Your task to perform on an android device: Search for the new lego star wars 2021 on Target Image 0: 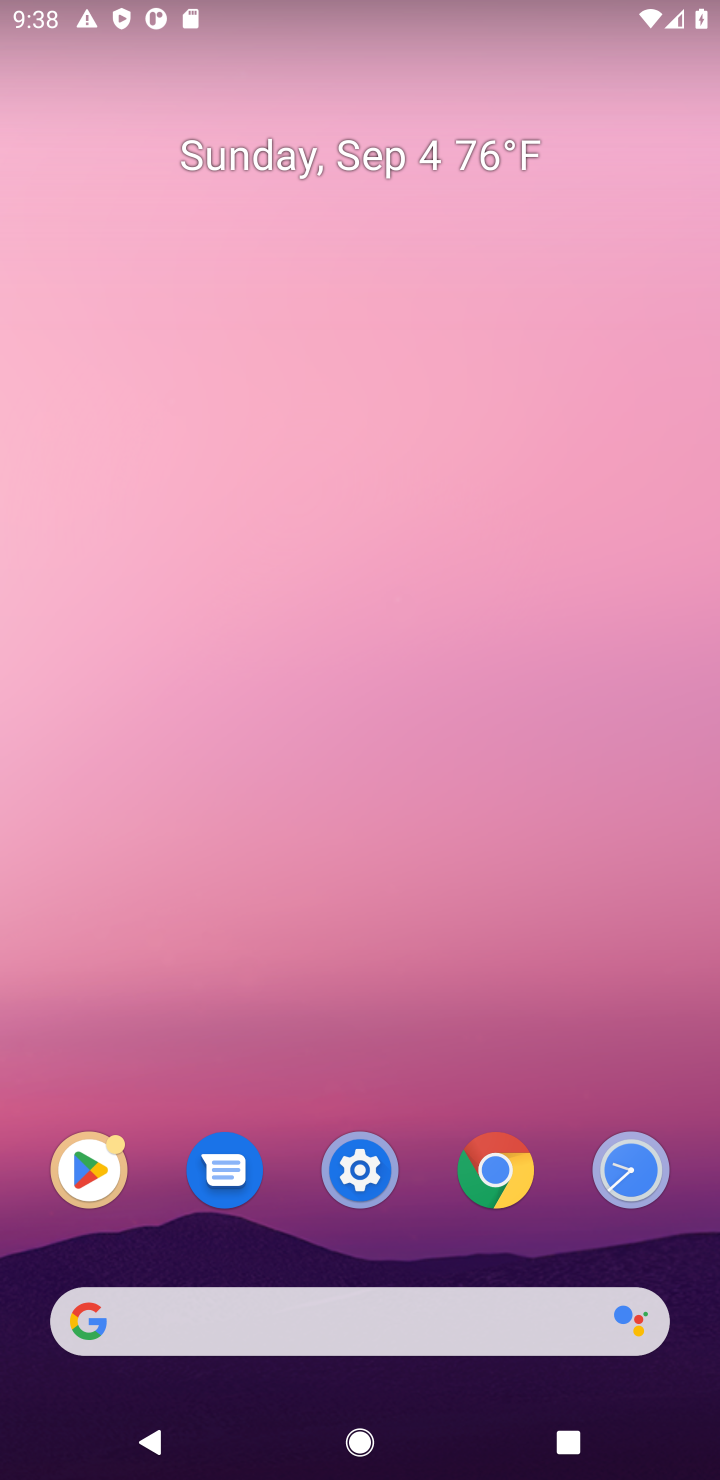
Step 0: click (332, 1331)
Your task to perform on an android device: Search for the new lego star wars 2021 on Target Image 1: 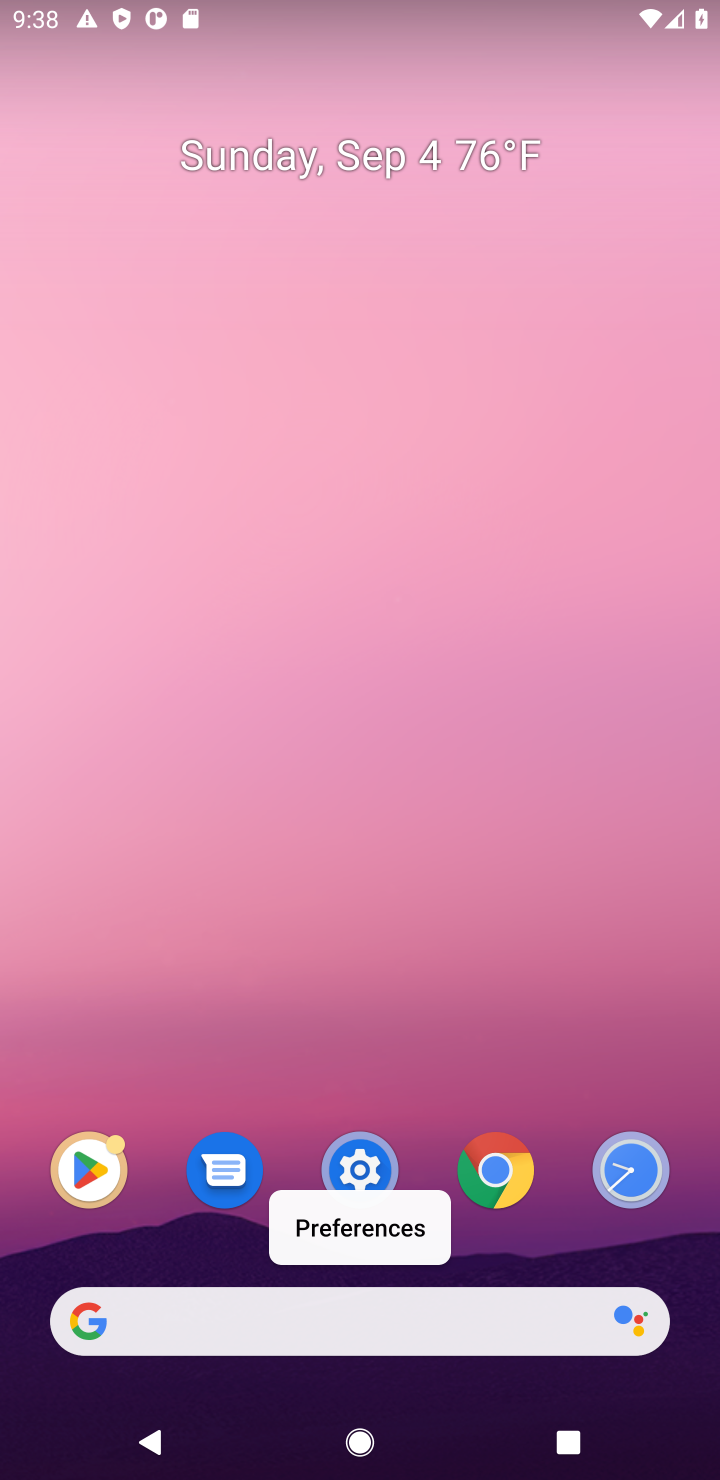
Step 1: click (332, 1331)
Your task to perform on an android device: Search for the new lego star wars 2021 on Target Image 2: 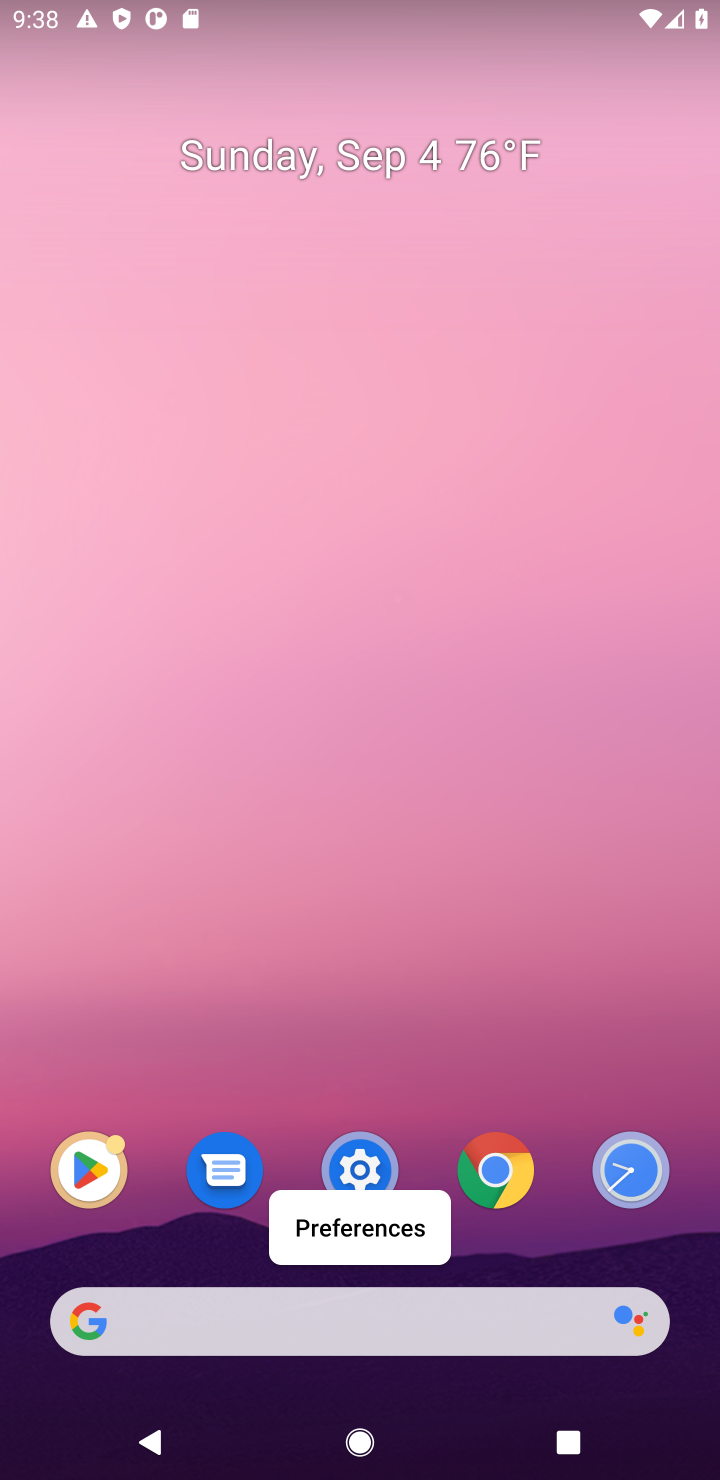
Step 2: click (346, 1327)
Your task to perform on an android device: Search for the new lego star wars 2021 on Target Image 3: 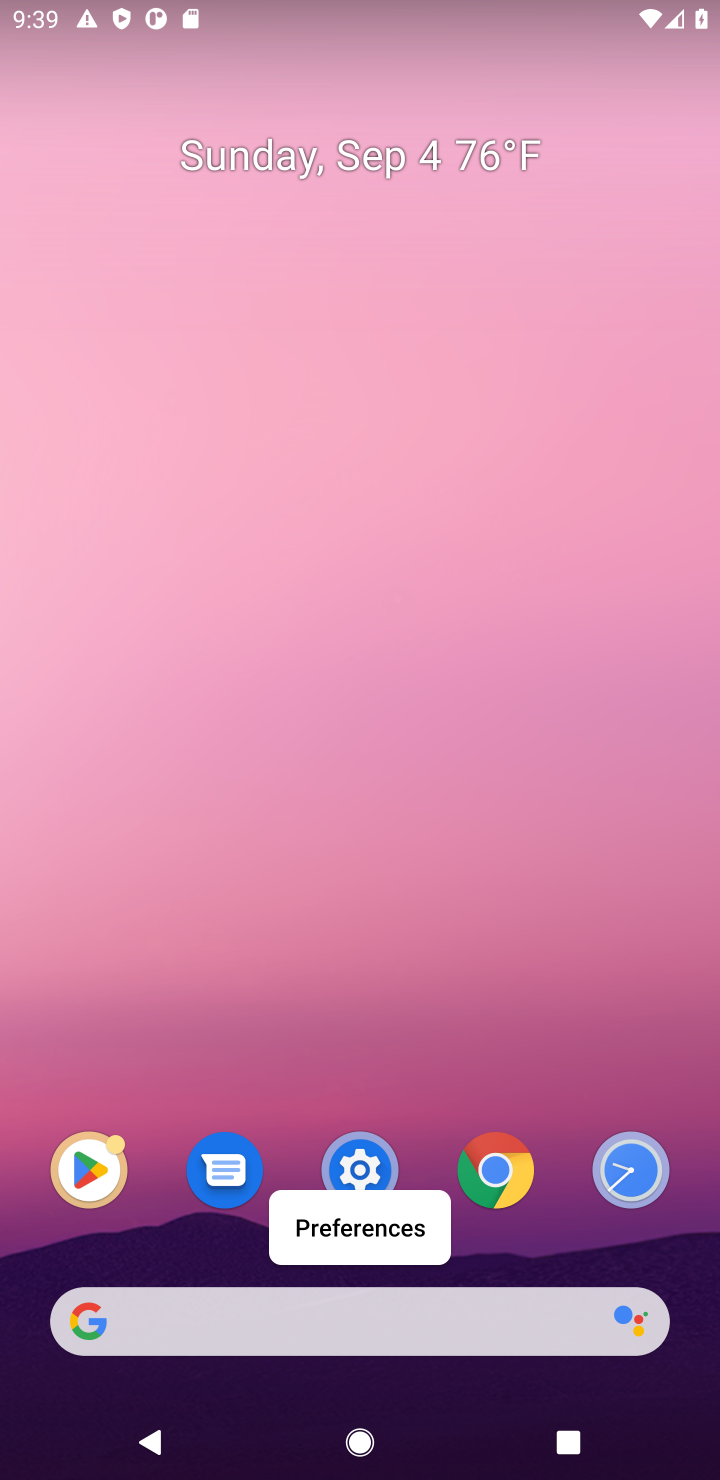
Step 3: click (366, 1338)
Your task to perform on an android device: Search for the new lego star wars 2021 on Target Image 4: 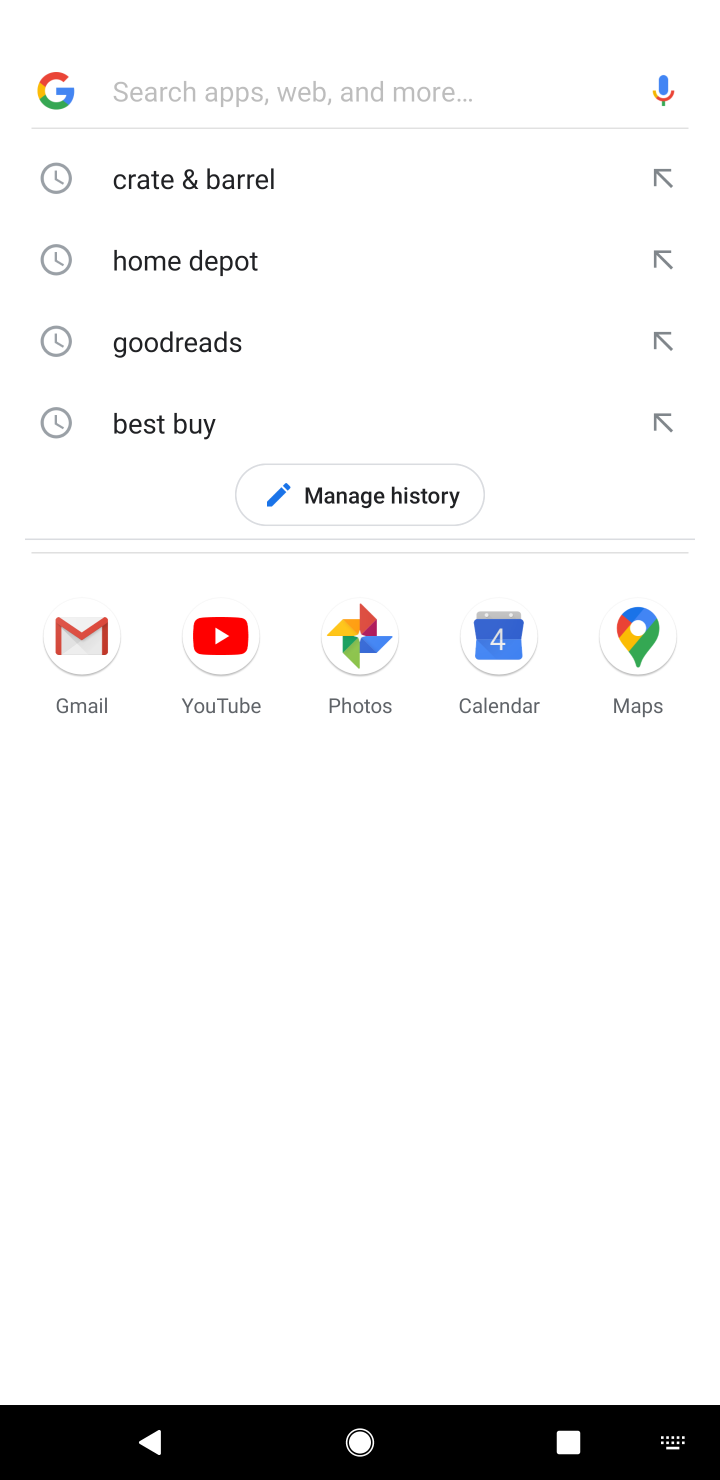
Step 4: type "Target"
Your task to perform on an android device: Search for the new lego star wars 2021 on Target Image 5: 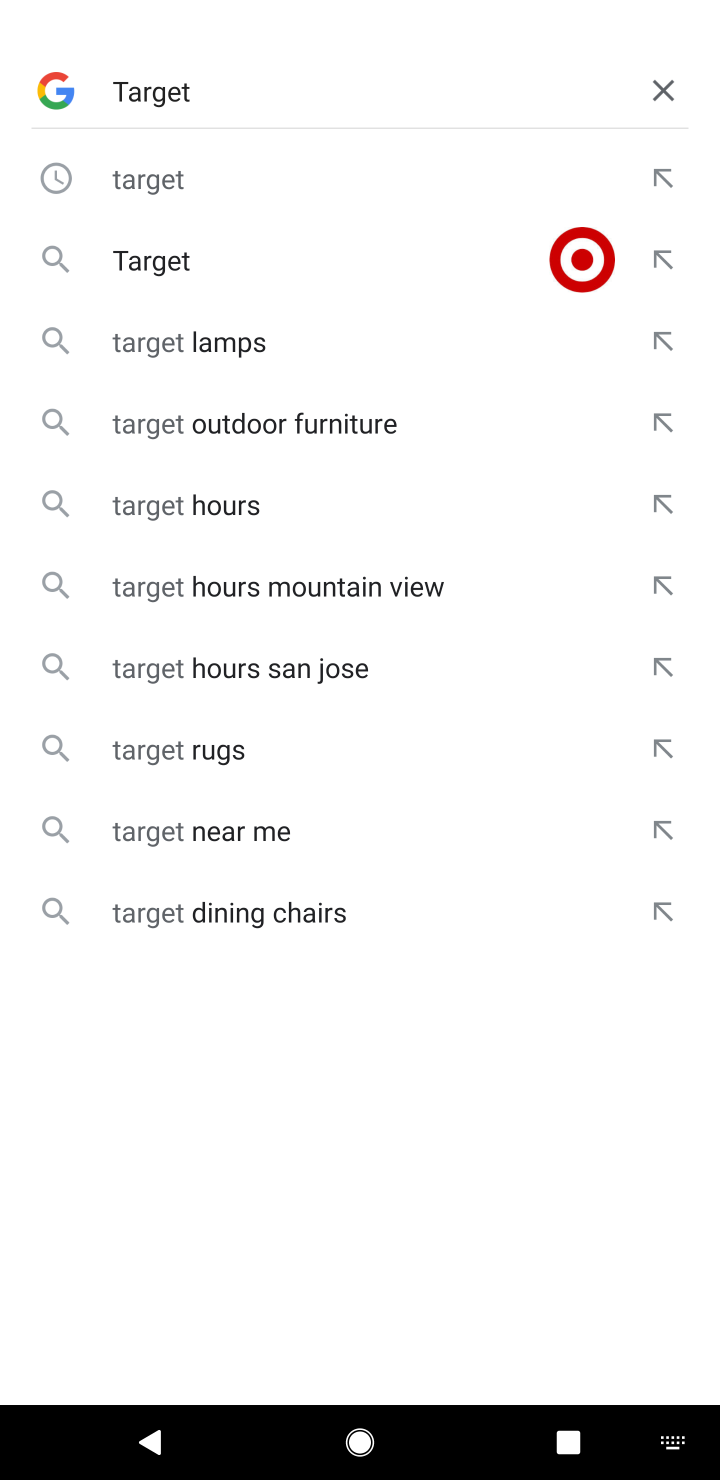
Step 5: type ""
Your task to perform on an android device: Search for the new lego star wars 2021 on Target Image 6: 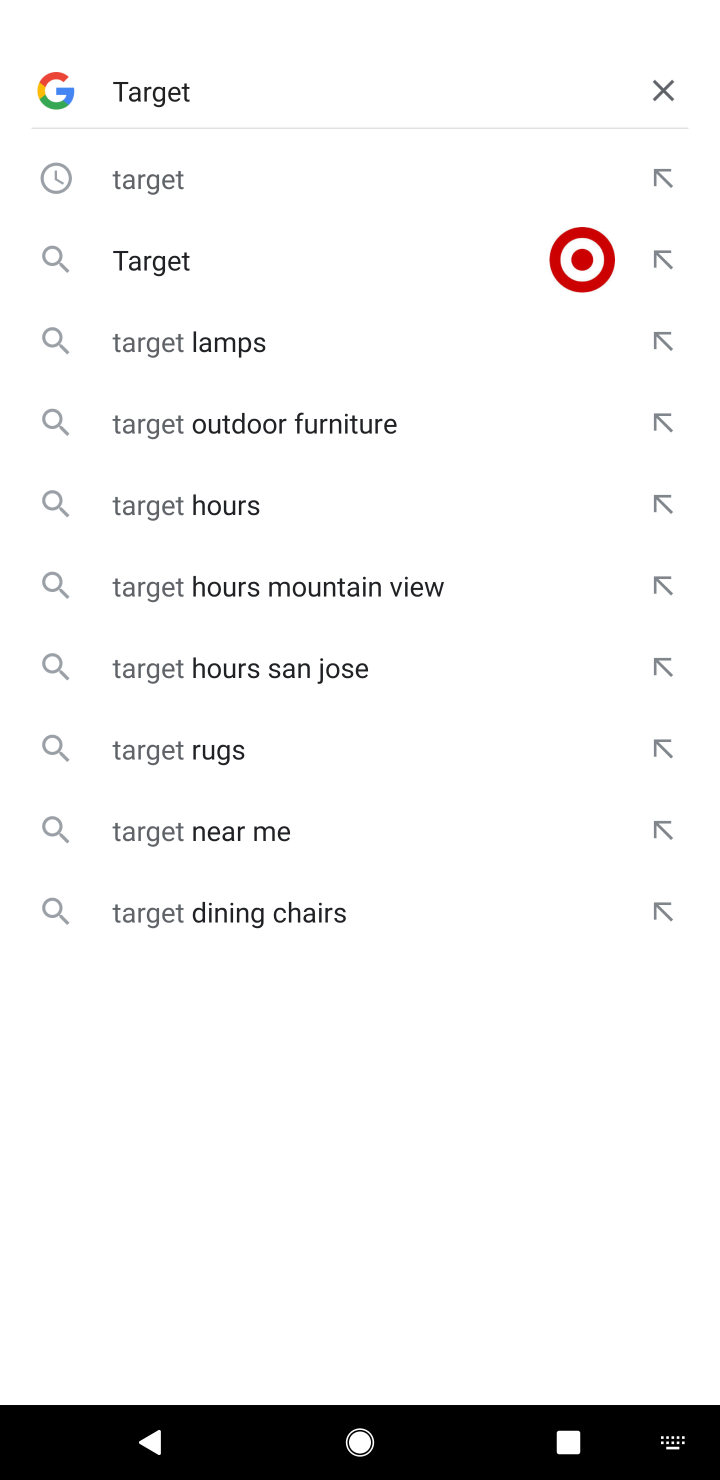
Step 6: click (195, 245)
Your task to perform on an android device: Search for the new lego star wars 2021 on Target Image 7: 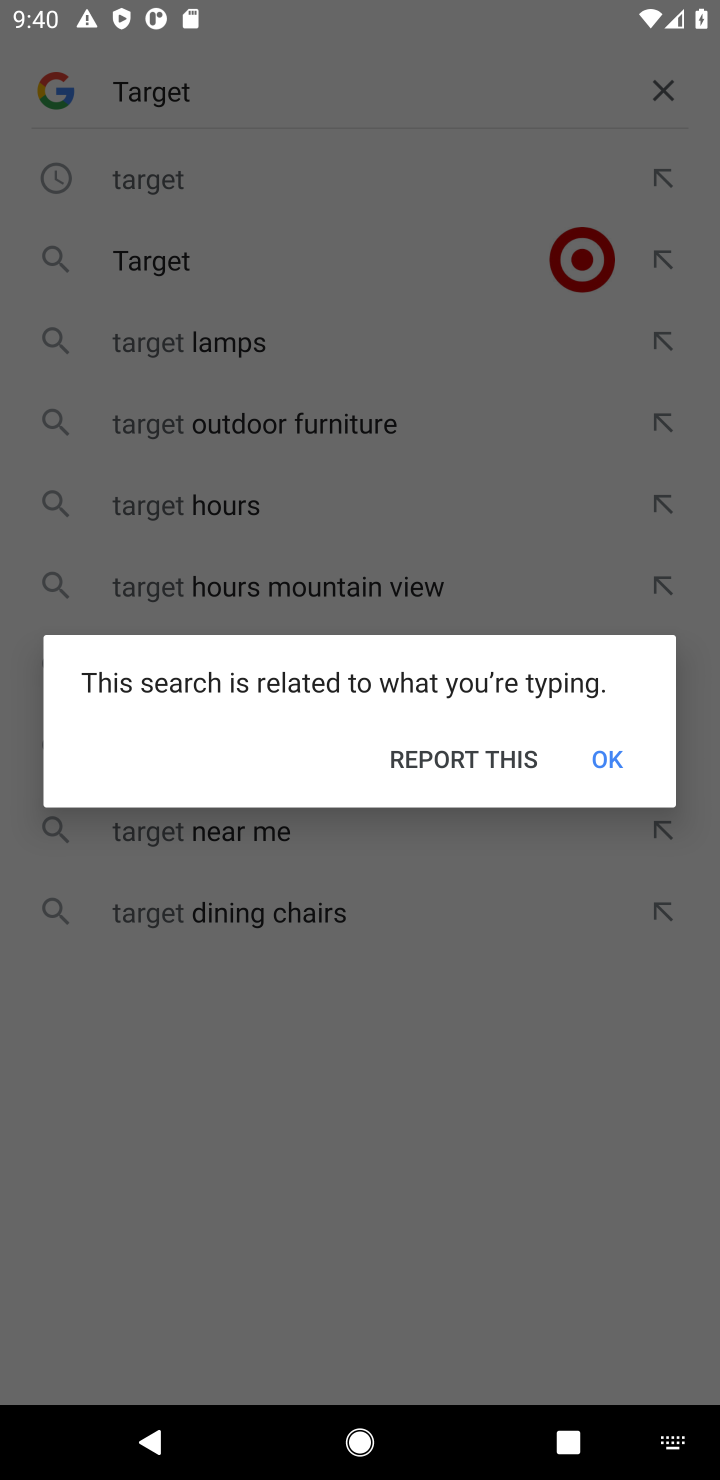
Step 7: click (610, 776)
Your task to perform on an android device: Search for the new lego star wars 2021 on Target Image 8: 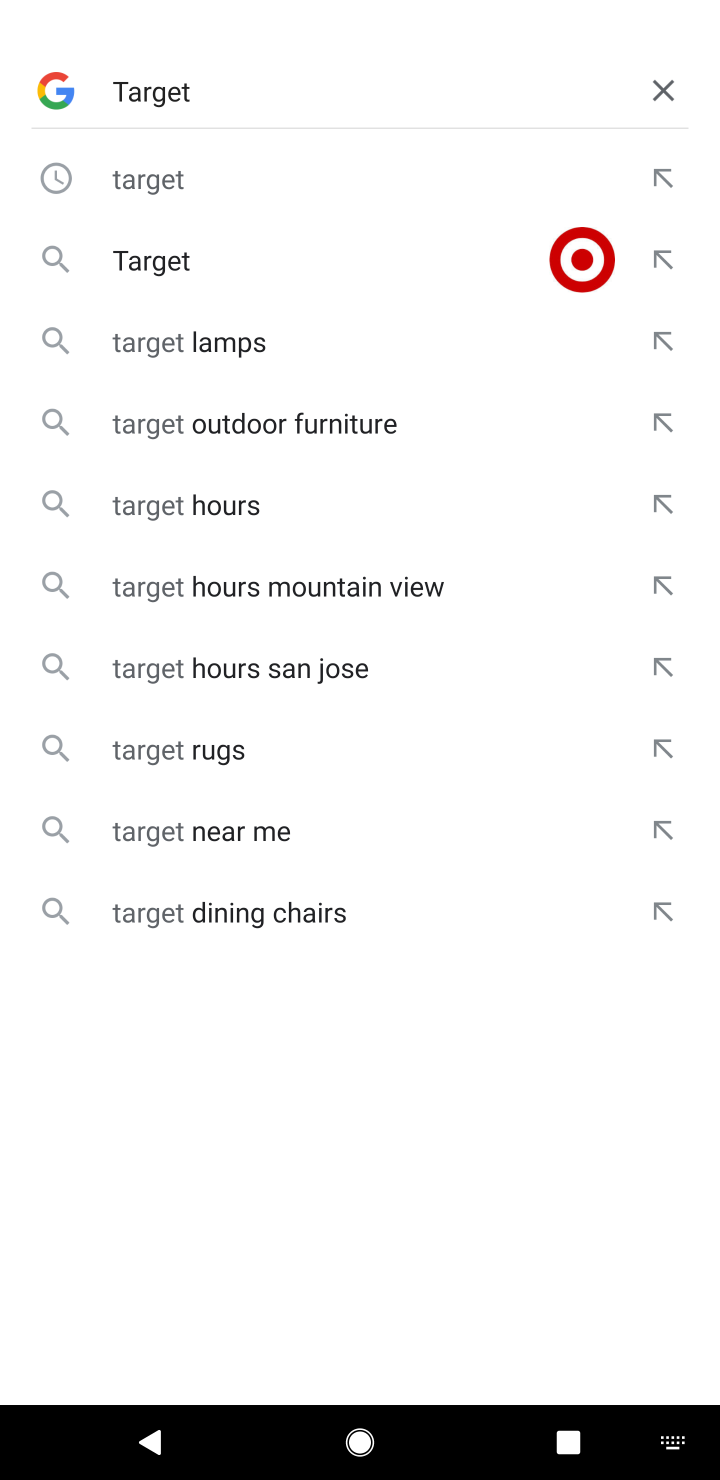
Step 8: click (169, 273)
Your task to perform on an android device: Search for the new lego star wars 2021 on Target Image 9: 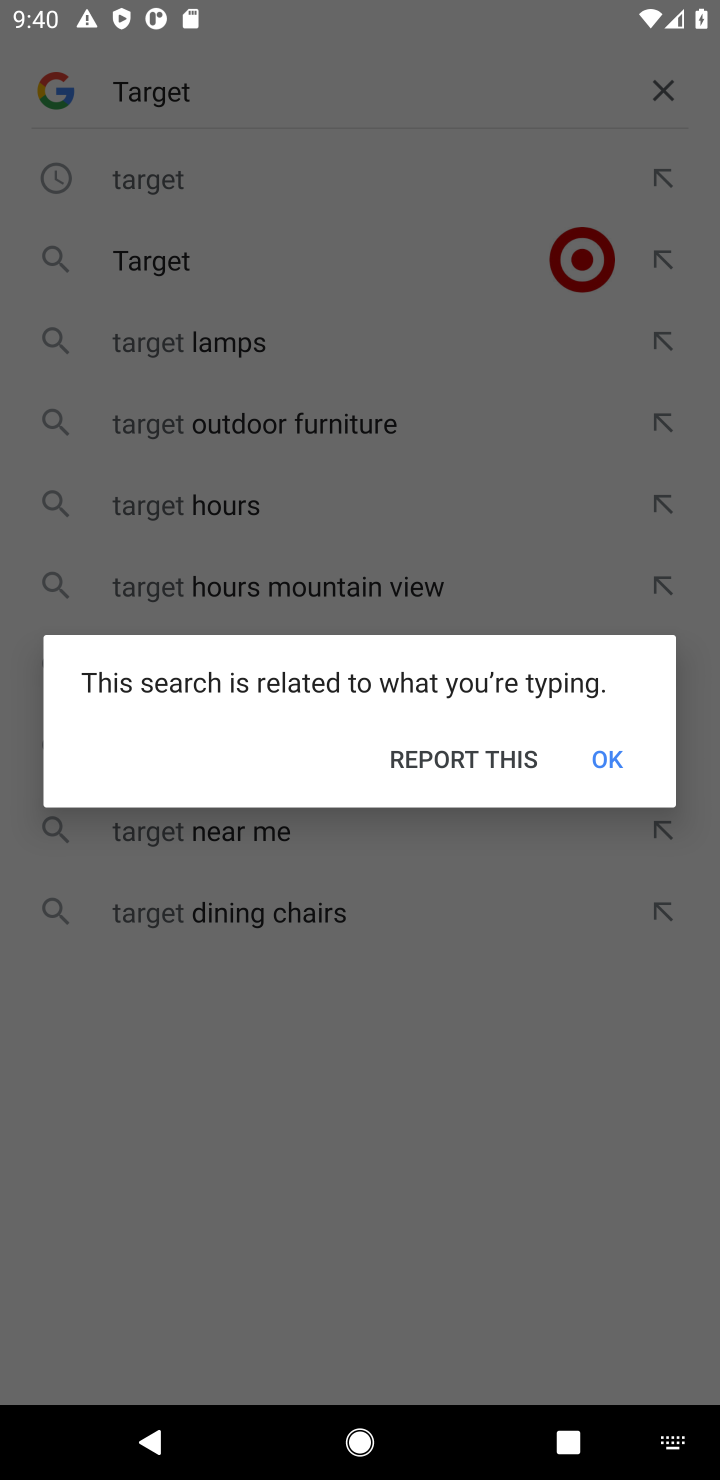
Step 9: click (587, 753)
Your task to perform on an android device: Search for the new lego star wars 2021 on Target Image 10: 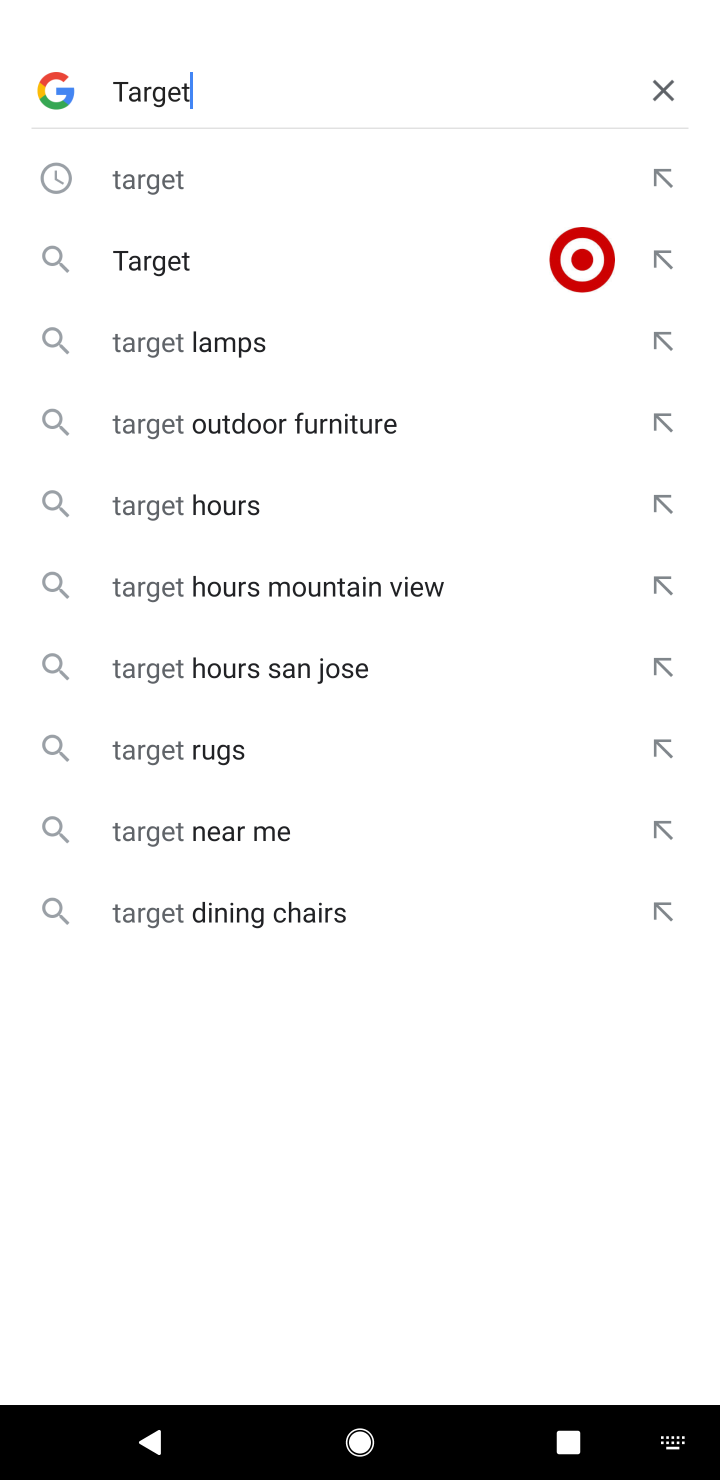
Step 10: click (186, 251)
Your task to perform on an android device: Search for the new lego star wars 2021 on Target Image 11: 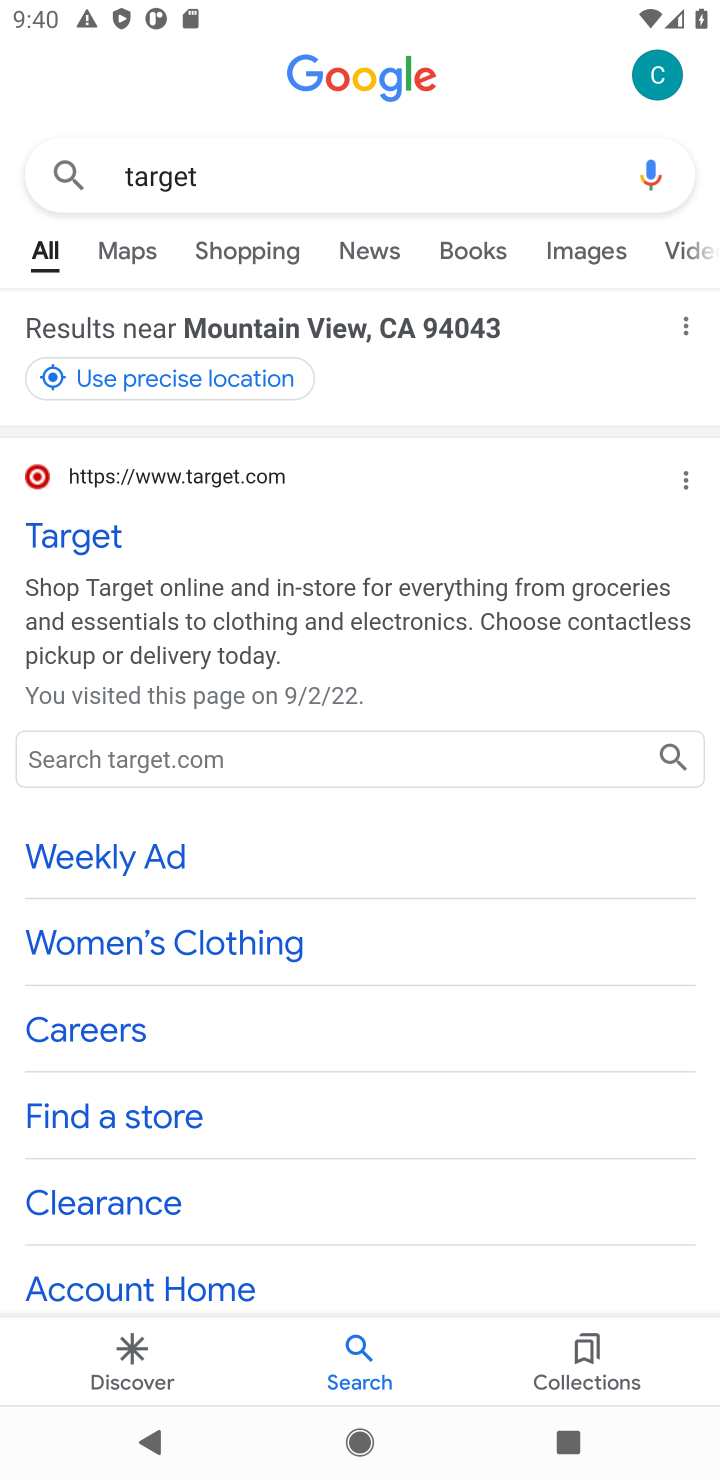
Step 11: click (97, 535)
Your task to perform on an android device: Search for the new lego star wars 2021 on Target Image 12: 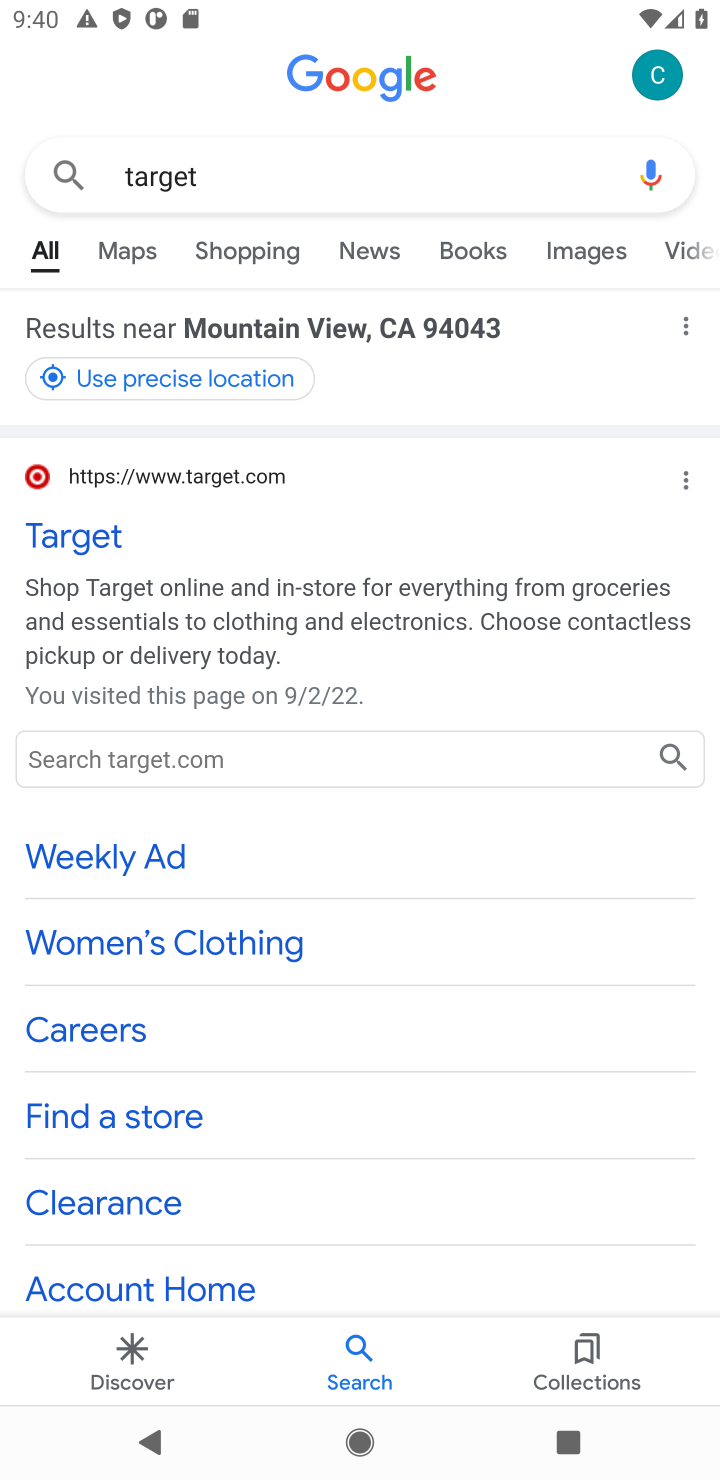
Step 12: click (126, 564)
Your task to perform on an android device: Search for the new lego star wars 2021 on Target Image 13: 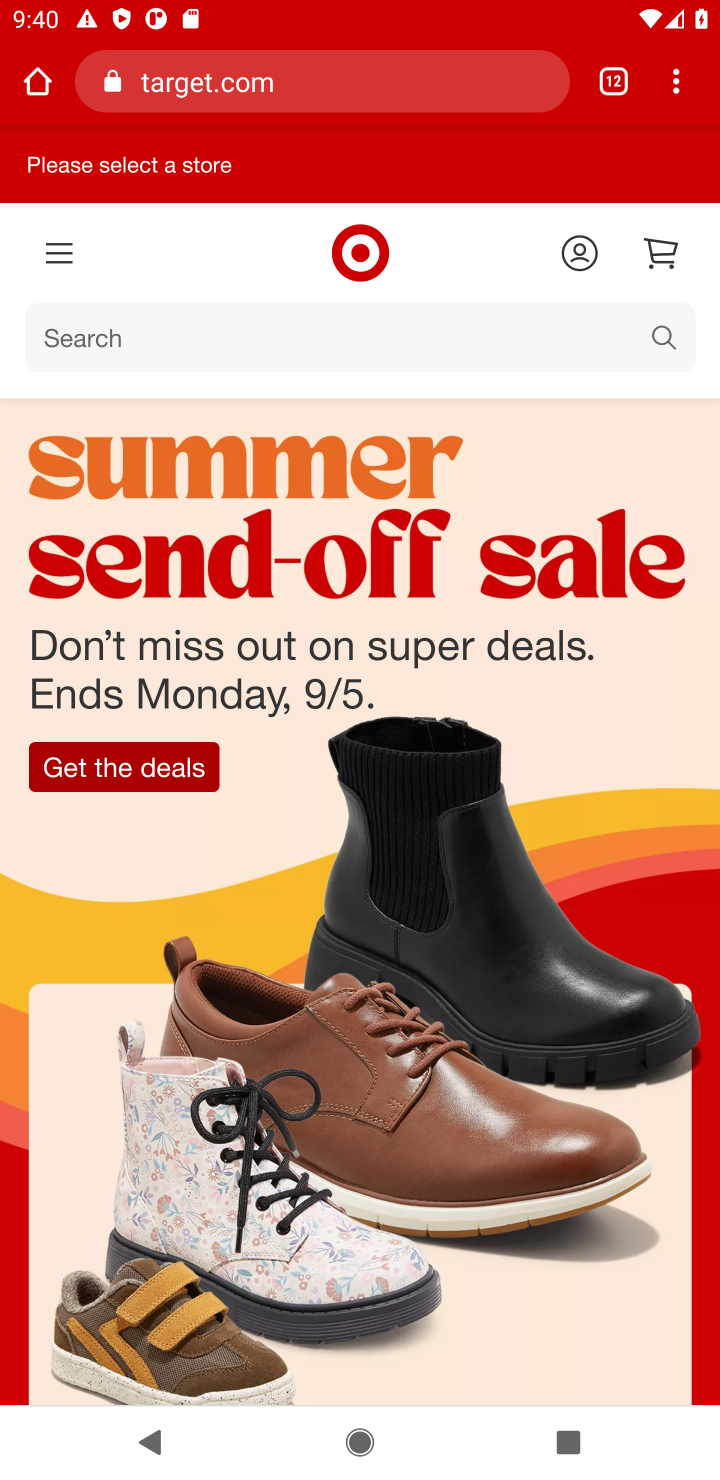
Step 13: click (122, 359)
Your task to perform on an android device: Search for the new lego star wars 2021 on Target Image 14: 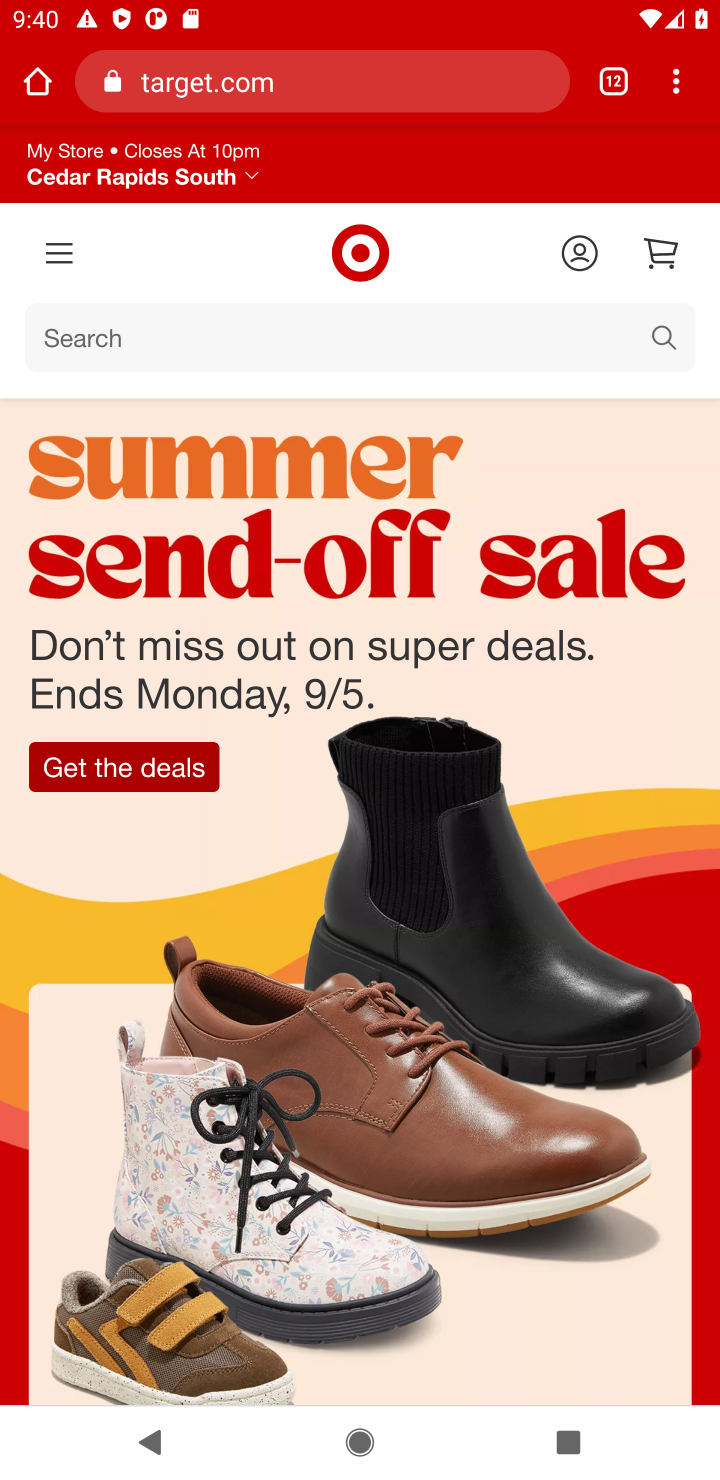
Step 14: click (132, 349)
Your task to perform on an android device: Search for the new lego star wars 2021 on Target Image 15: 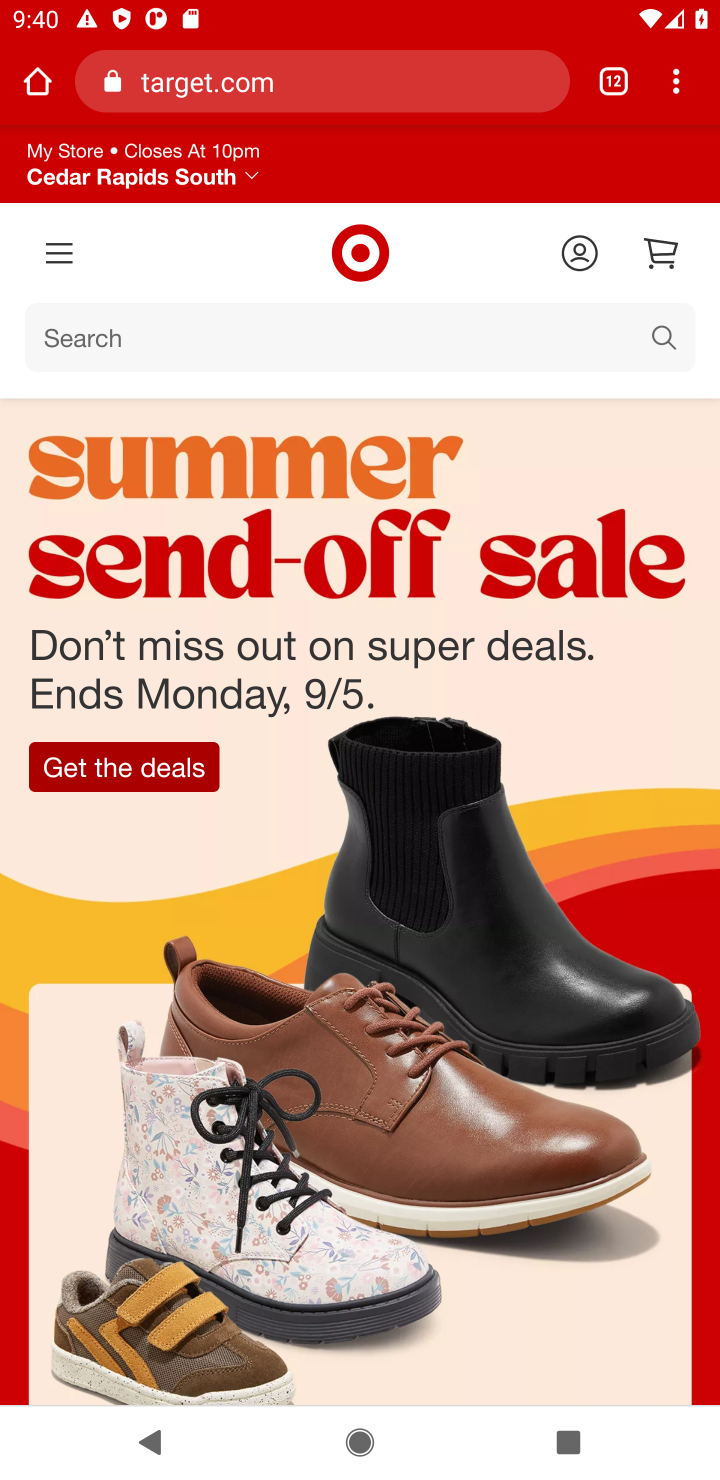
Step 15: click (144, 346)
Your task to perform on an android device: Search for the new lego star wars 2021 on Target Image 16: 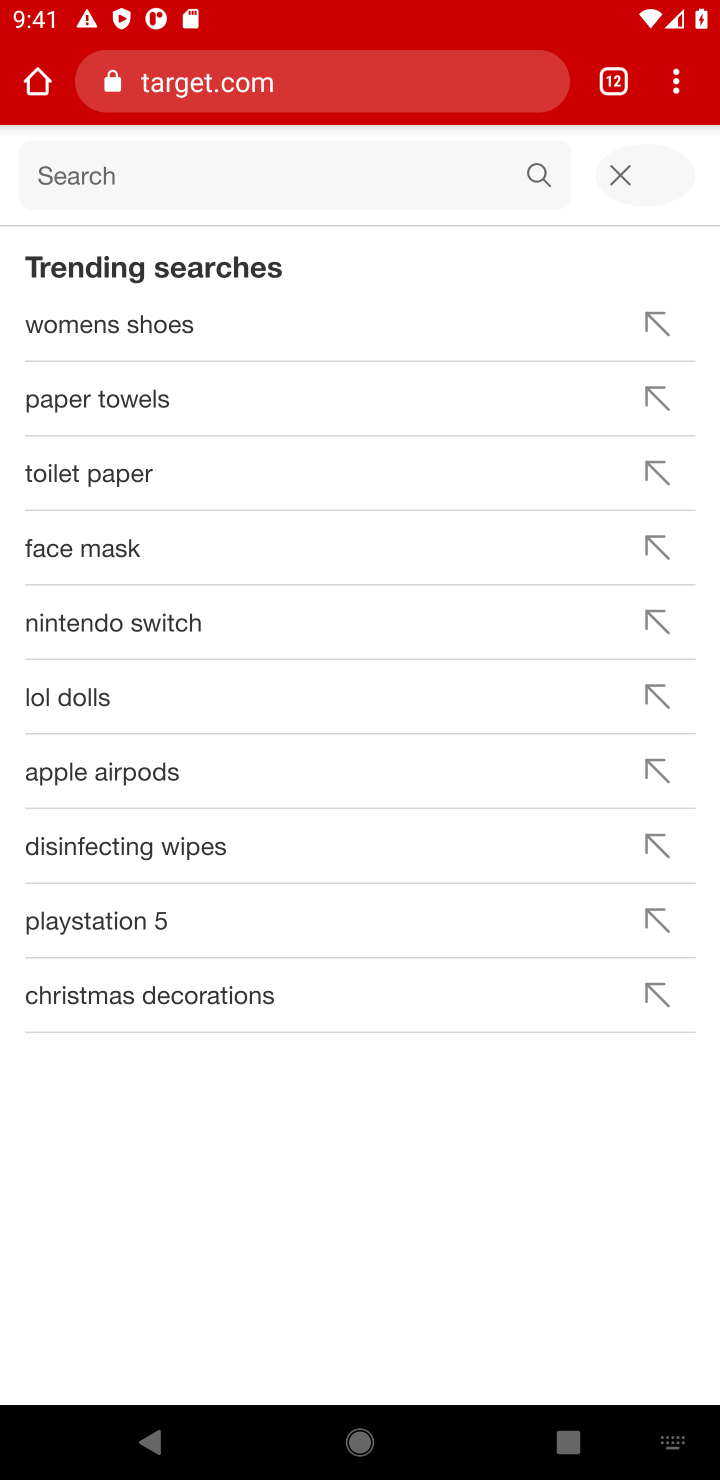
Step 16: type "new lego star wars 2021"
Your task to perform on an android device: Search for the new lego star wars 2021 on Target Image 17: 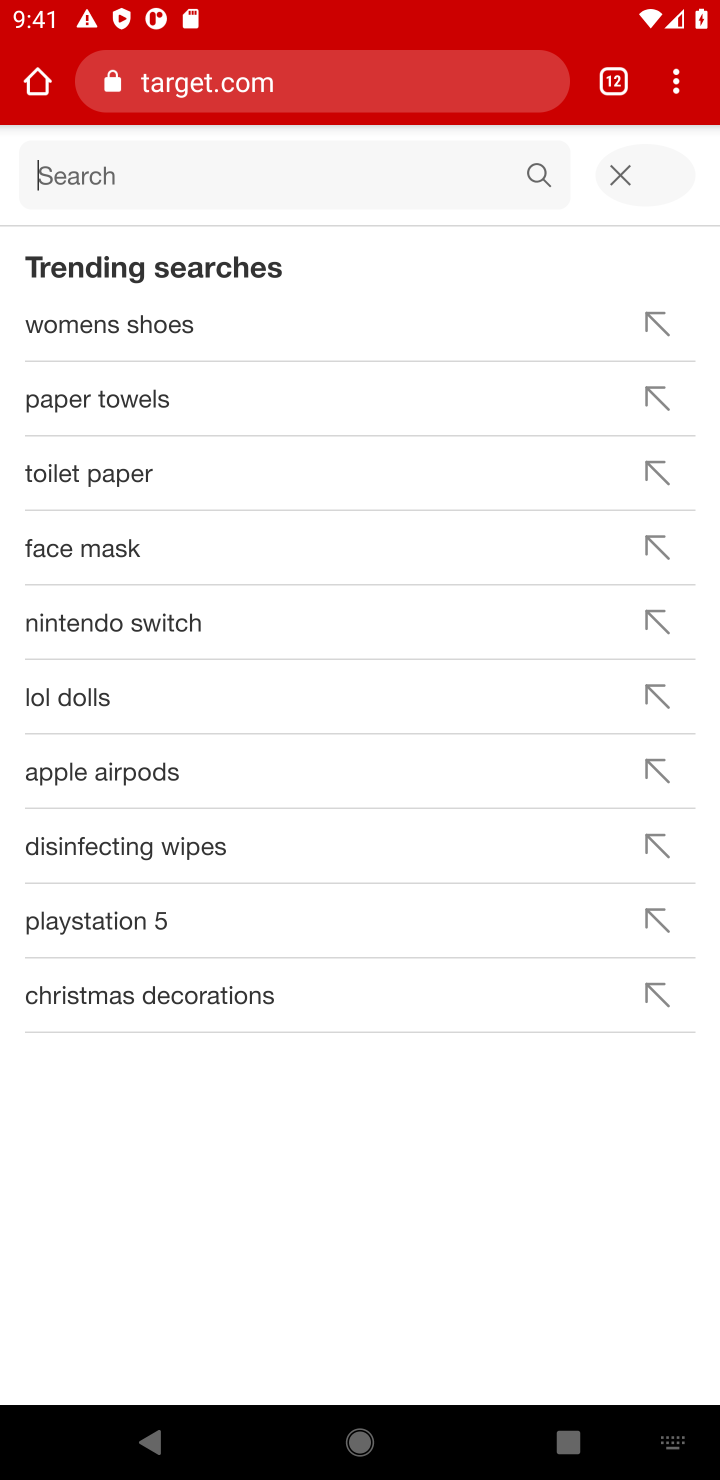
Step 17: type ""
Your task to perform on an android device: Search for the new lego star wars 2021 on Target Image 18: 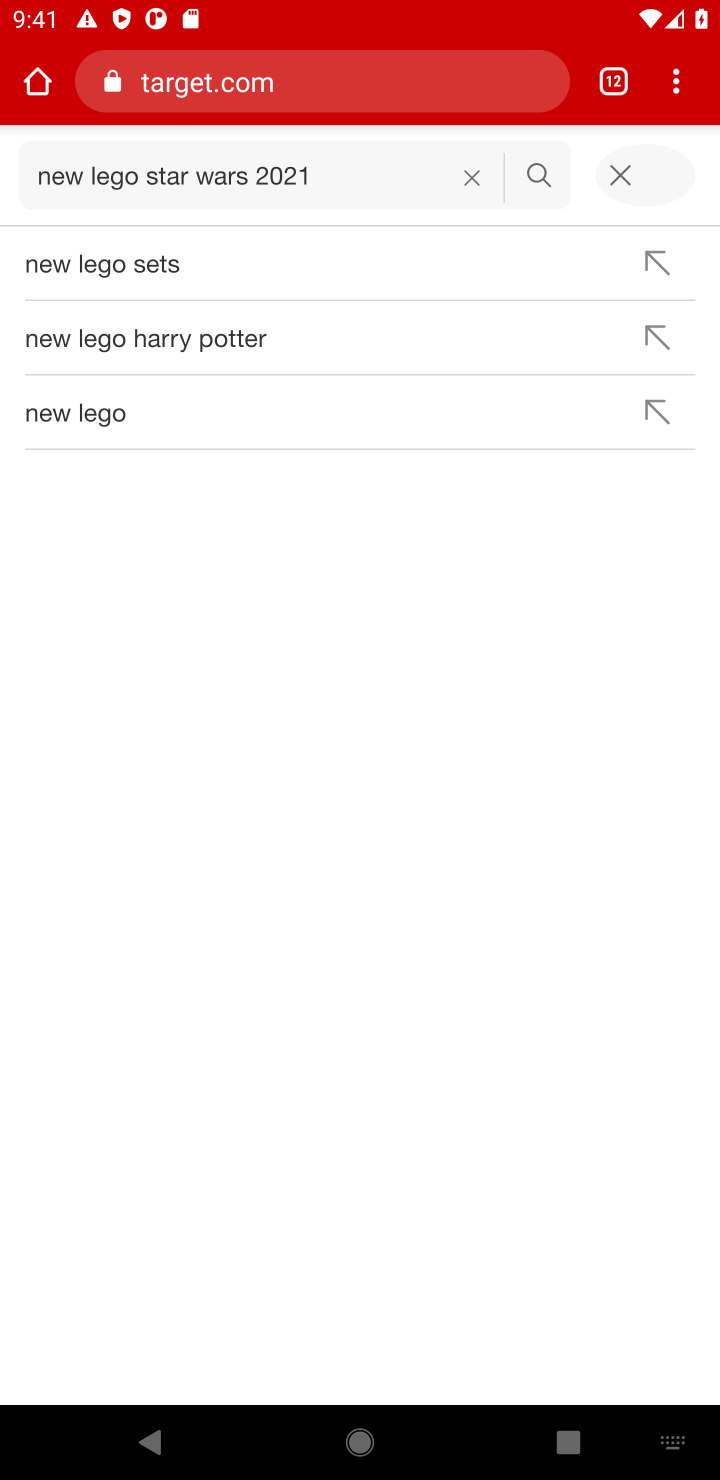
Step 18: click (550, 169)
Your task to perform on an android device: Search for the new lego star wars 2021 on Target Image 19: 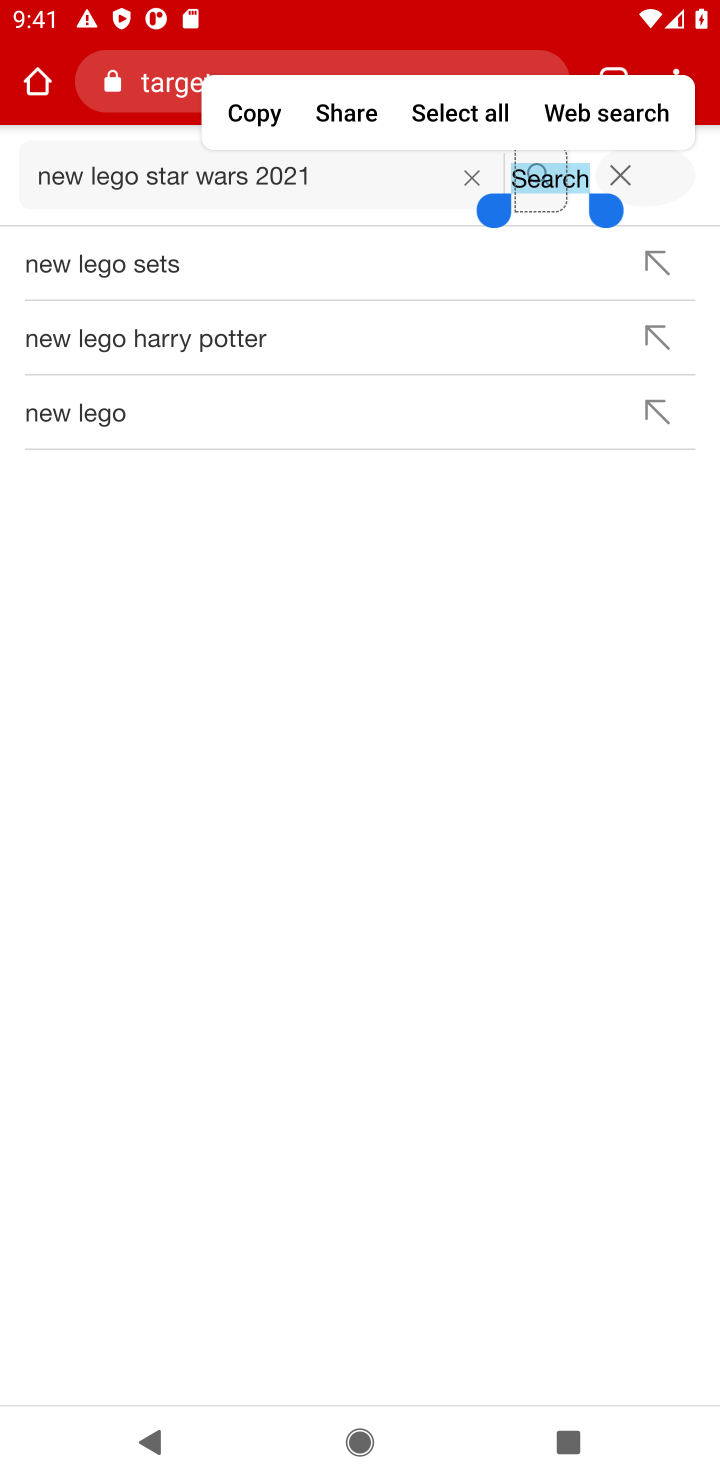
Step 19: click (538, 157)
Your task to perform on an android device: Search for the new lego star wars 2021 on Target Image 20: 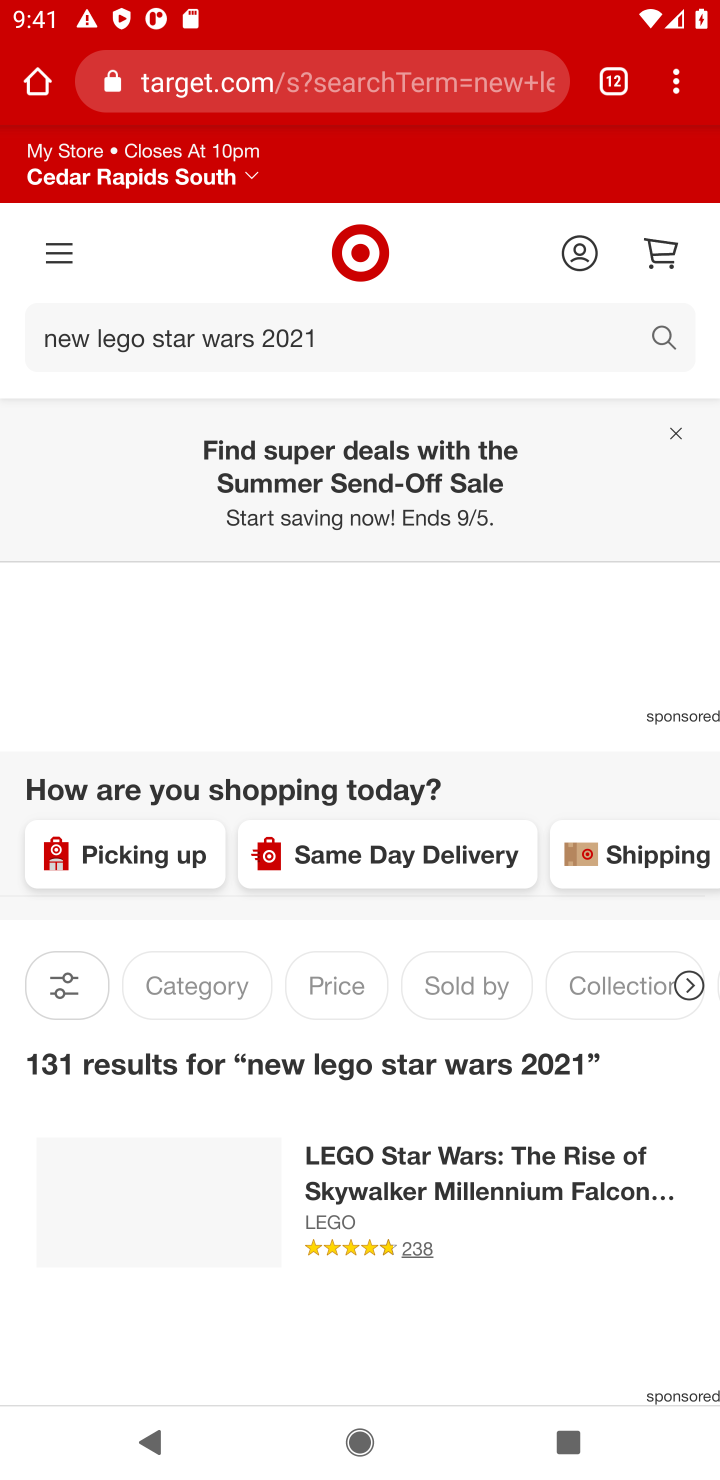
Step 20: task complete